Your task to perform on an android device: turn off priority inbox in the gmail app Image 0: 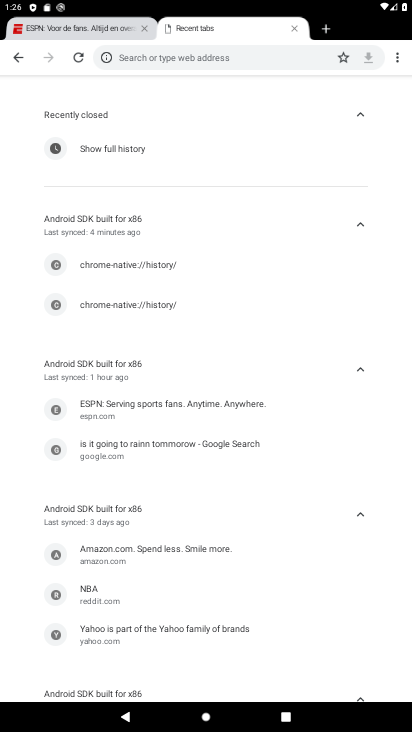
Step 0: press home button
Your task to perform on an android device: turn off priority inbox in the gmail app Image 1: 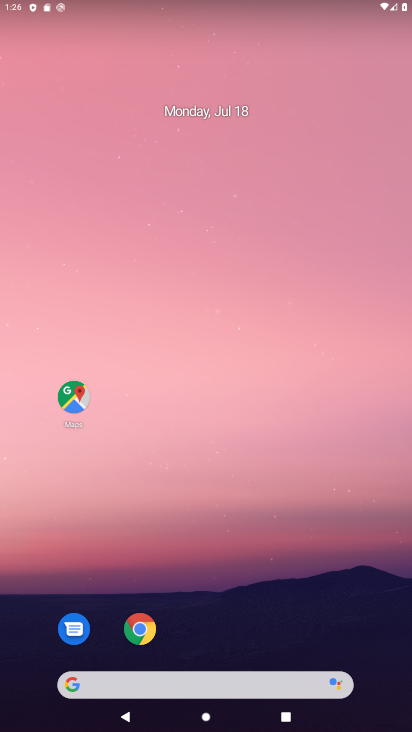
Step 1: drag from (207, 621) to (219, 8)
Your task to perform on an android device: turn off priority inbox in the gmail app Image 2: 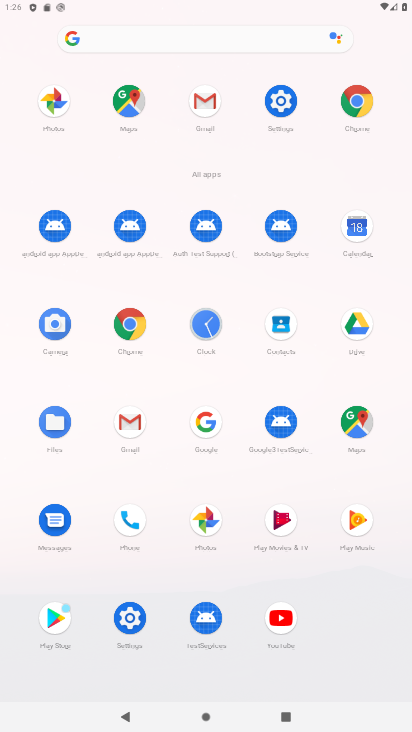
Step 2: click (206, 130)
Your task to perform on an android device: turn off priority inbox in the gmail app Image 3: 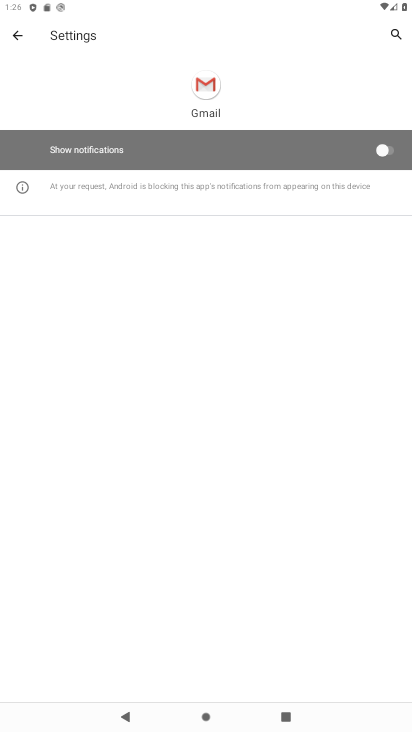
Step 3: click (21, 32)
Your task to perform on an android device: turn off priority inbox in the gmail app Image 4: 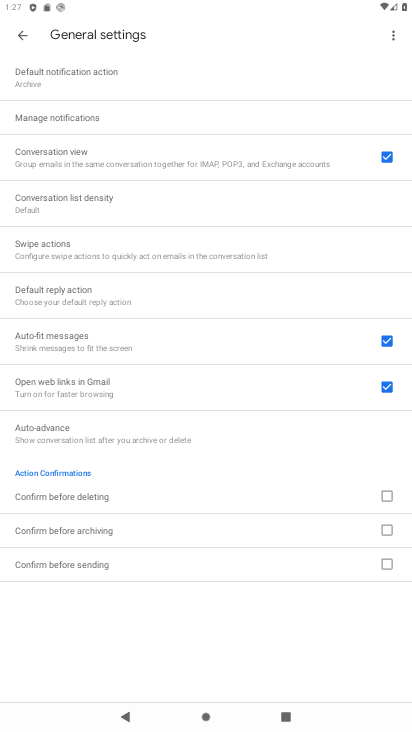
Step 4: click (18, 30)
Your task to perform on an android device: turn off priority inbox in the gmail app Image 5: 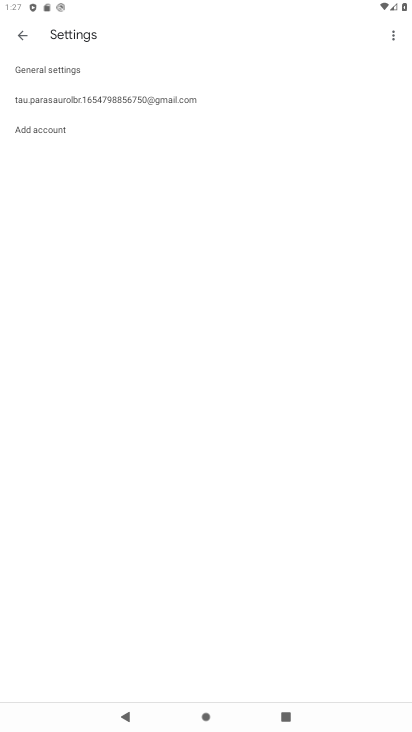
Step 5: click (164, 96)
Your task to perform on an android device: turn off priority inbox in the gmail app Image 6: 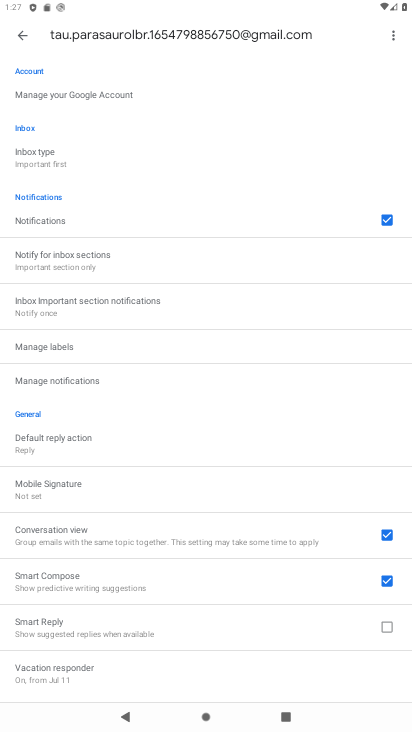
Step 6: click (76, 158)
Your task to perform on an android device: turn off priority inbox in the gmail app Image 7: 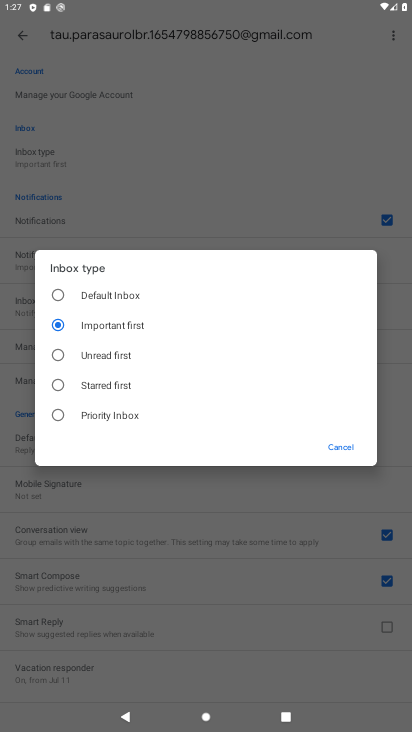
Step 7: click (58, 390)
Your task to perform on an android device: turn off priority inbox in the gmail app Image 8: 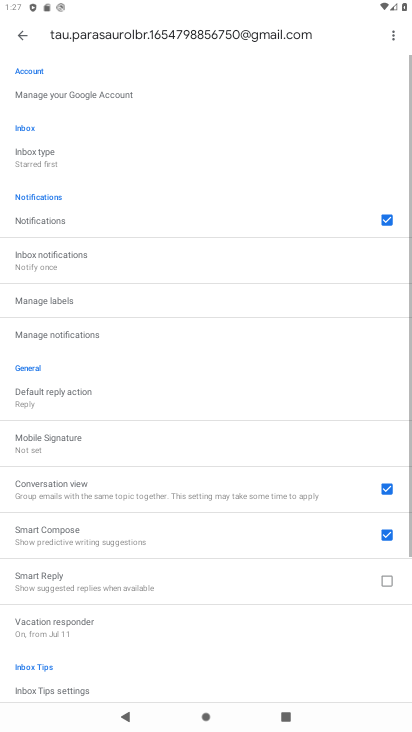
Step 8: task complete